Your task to perform on an android device: Open calendar and show me the first week of next month Image 0: 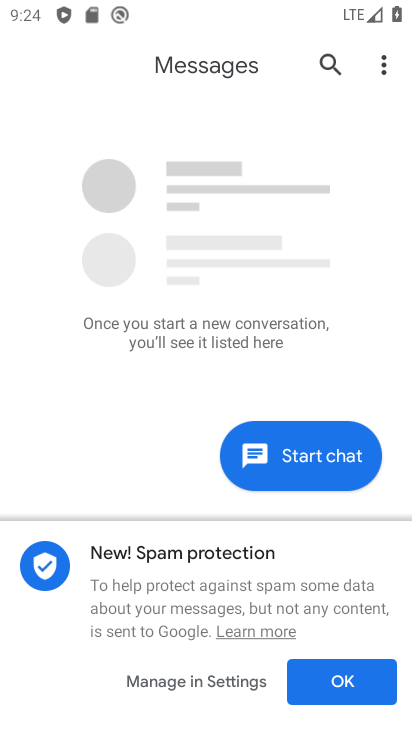
Step 0: press home button
Your task to perform on an android device: Open calendar and show me the first week of next month Image 1: 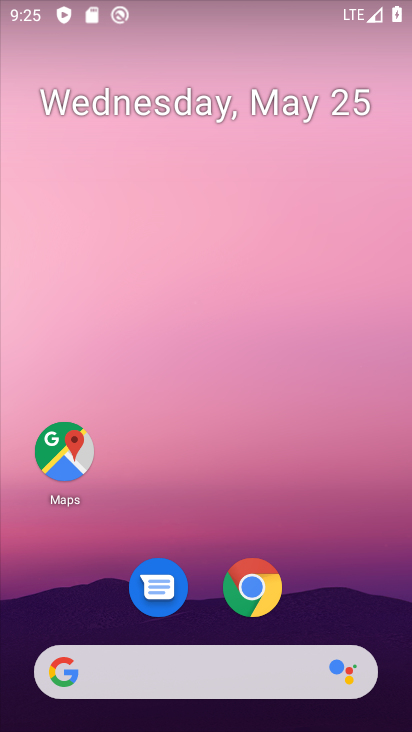
Step 1: drag from (197, 601) to (202, 56)
Your task to perform on an android device: Open calendar and show me the first week of next month Image 2: 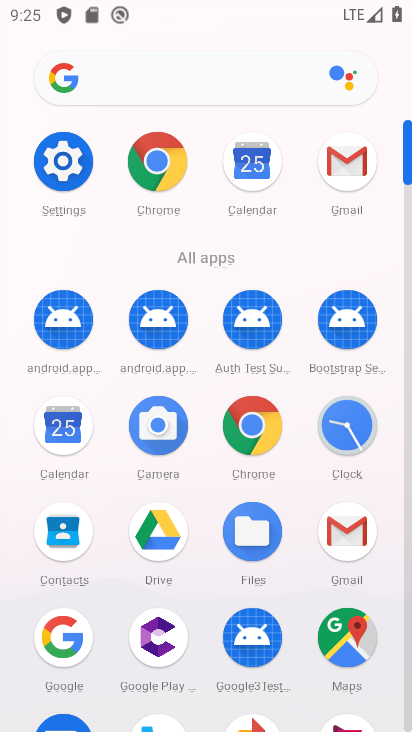
Step 2: click (90, 433)
Your task to perform on an android device: Open calendar and show me the first week of next month Image 3: 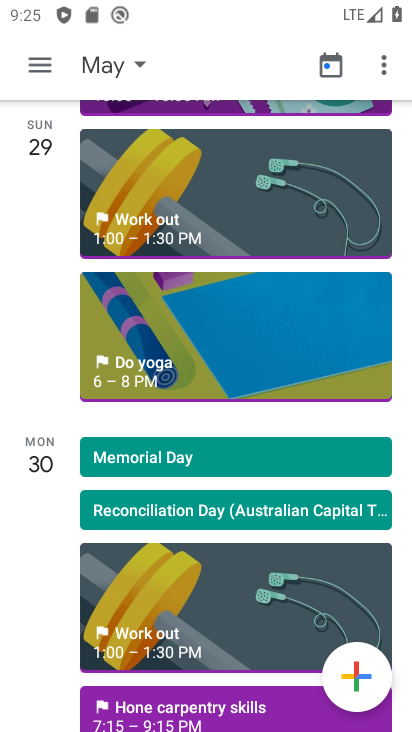
Step 3: click (38, 75)
Your task to perform on an android device: Open calendar and show me the first week of next month Image 4: 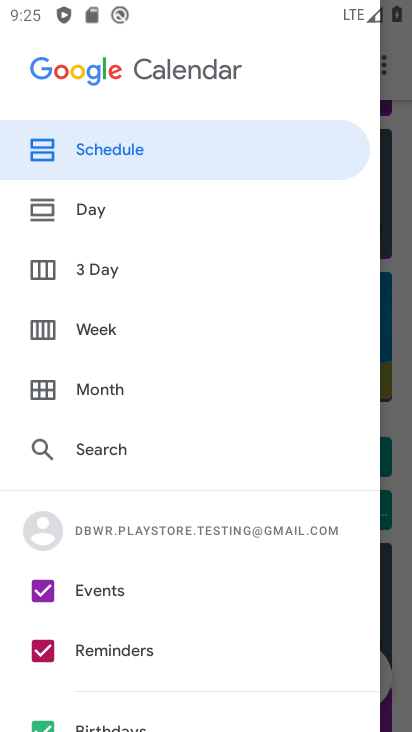
Step 4: click (90, 331)
Your task to perform on an android device: Open calendar and show me the first week of next month Image 5: 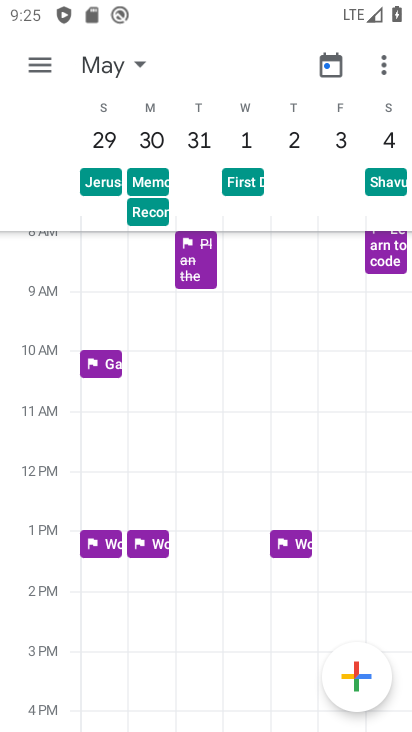
Step 5: task complete